Your task to perform on an android device: remove spam from my inbox in the gmail app Image 0: 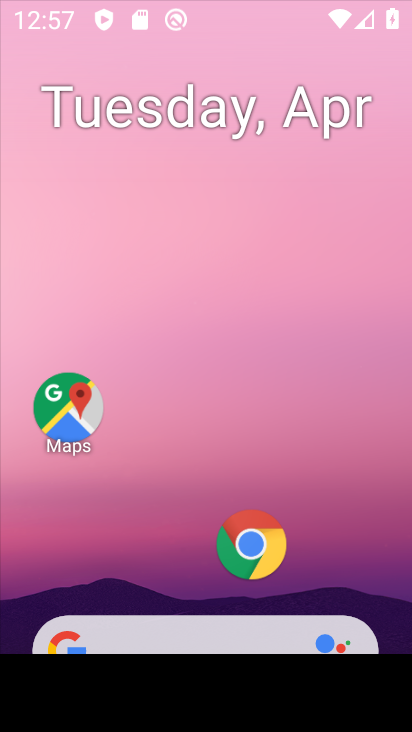
Step 0: click (158, 592)
Your task to perform on an android device: remove spam from my inbox in the gmail app Image 1: 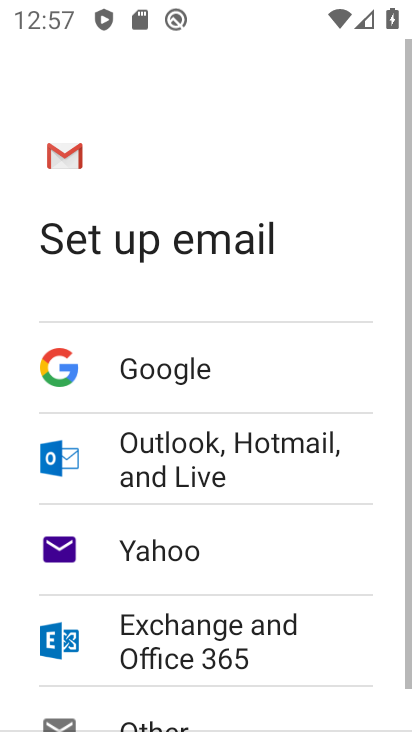
Step 1: drag from (167, 522) to (185, 430)
Your task to perform on an android device: remove spam from my inbox in the gmail app Image 2: 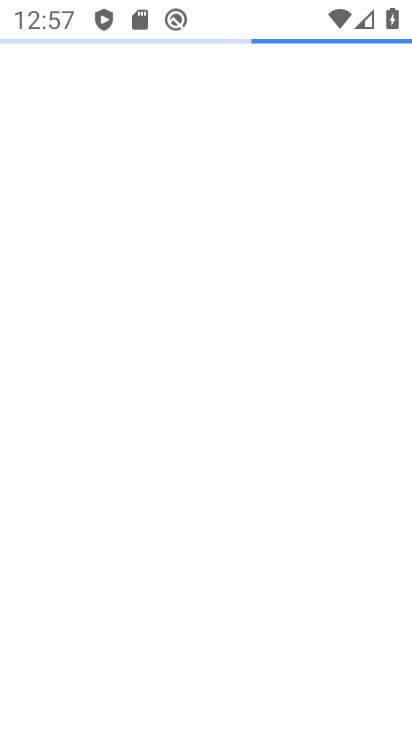
Step 2: press home button
Your task to perform on an android device: remove spam from my inbox in the gmail app Image 3: 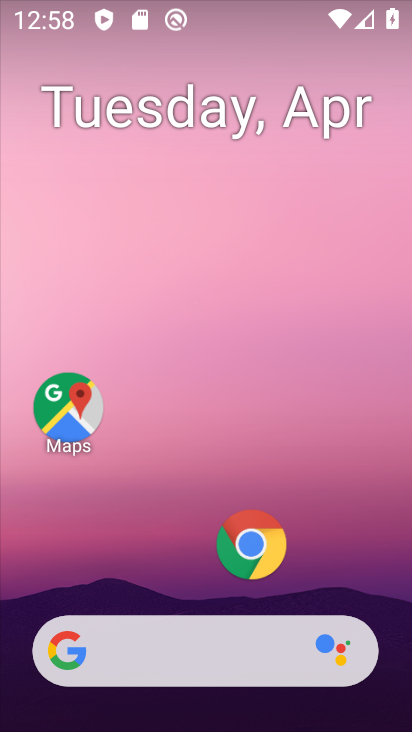
Step 3: drag from (162, 544) to (220, 133)
Your task to perform on an android device: remove spam from my inbox in the gmail app Image 4: 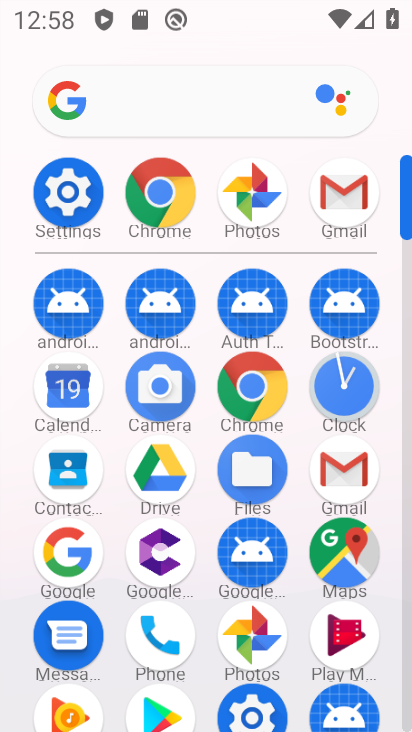
Step 4: click (58, 193)
Your task to perform on an android device: remove spam from my inbox in the gmail app Image 5: 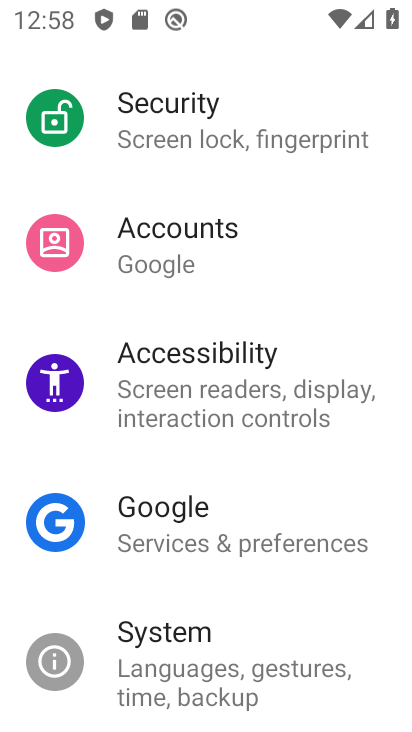
Step 5: click (165, 378)
Your task to perform on an android device: remove spam from my inbox in the gmail app Image 6: 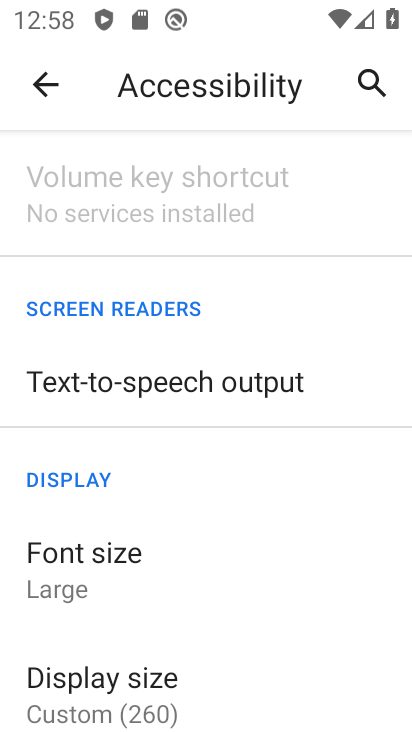
Step 6: task complete